Your task to perform on an android device: See recent photos Image 0: 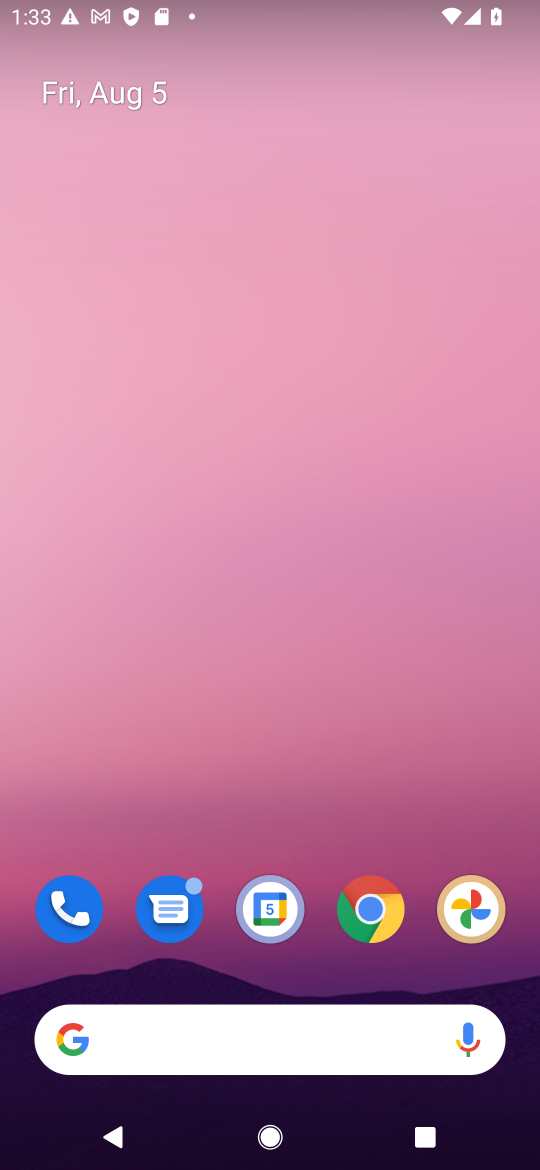
Step 0: click (469, 896)
Your task to perform on an android device: See recent photos Image 1: 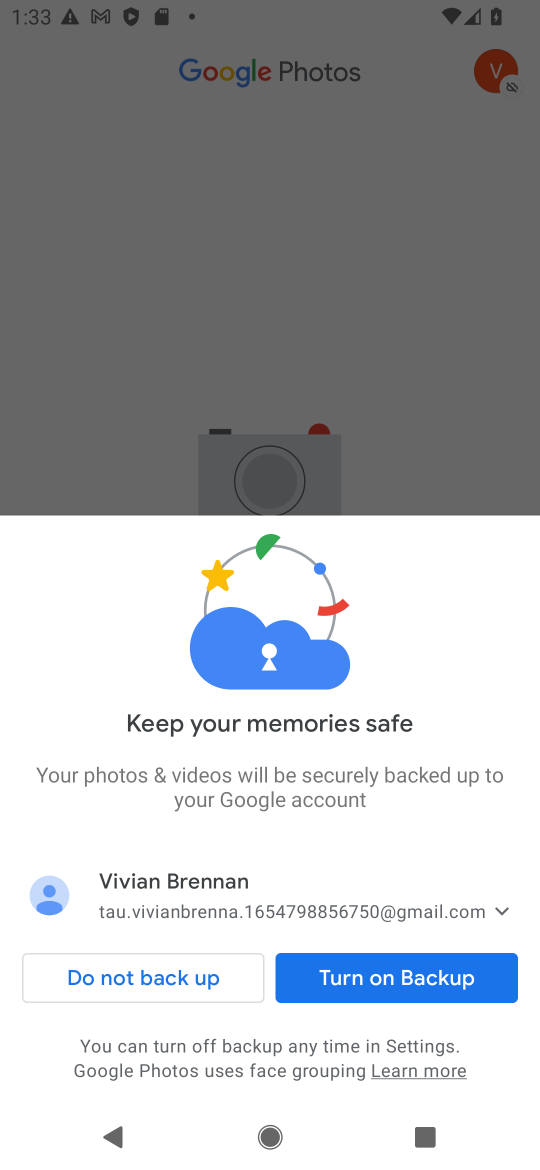
Step 1: click (379, 978)
Your task to perform on an android device: See recent photos Image 2: 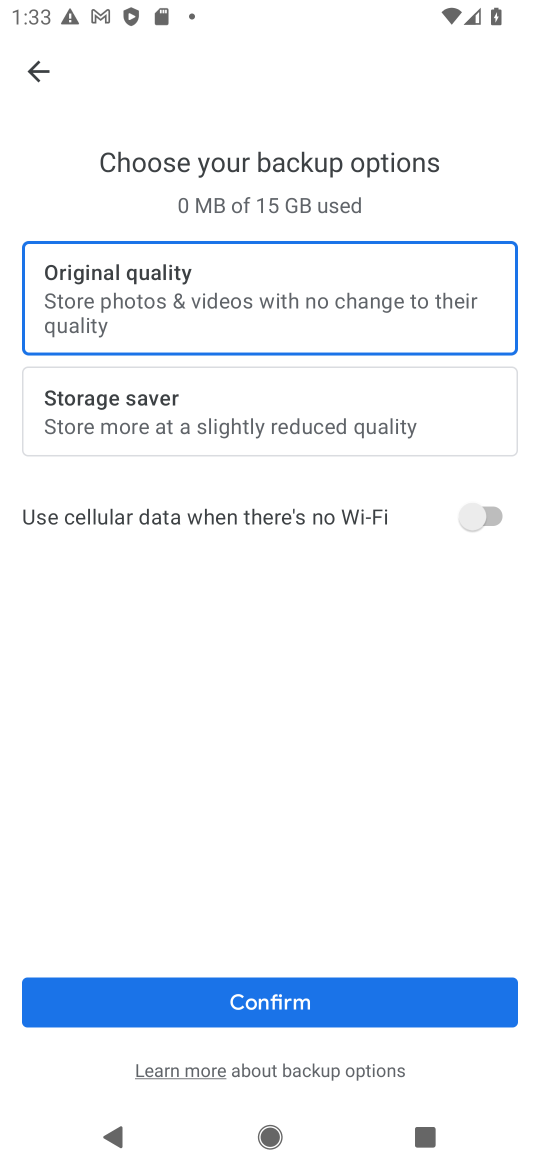
Step 2: click (316, 990)
Your task to perform on an android device: See recent photos Image 3: 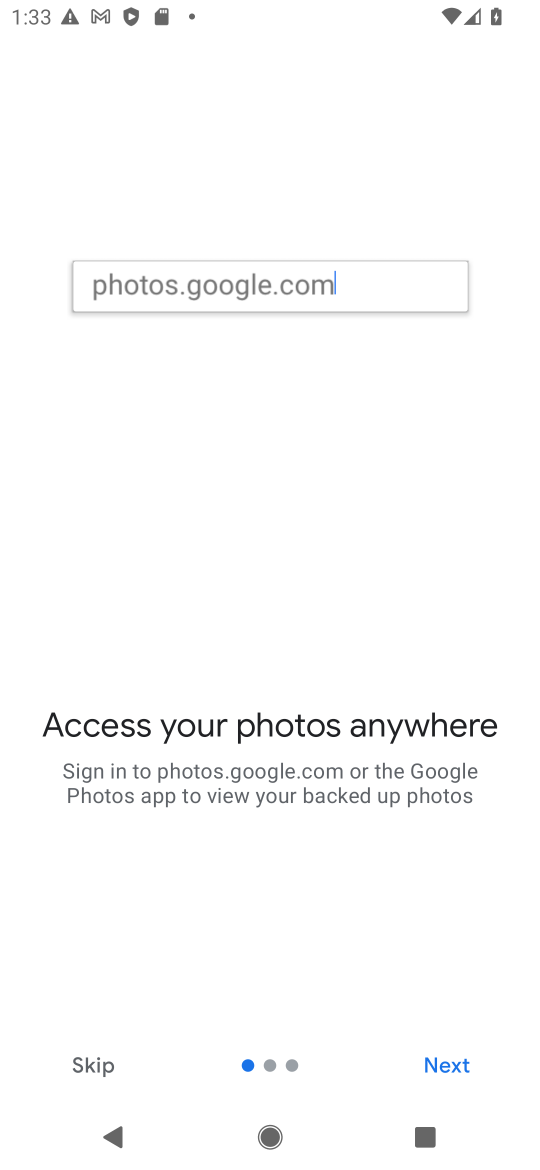
Step 3: click (433, 1065)
Your task to perform on an android device: See recent photos Image 4: 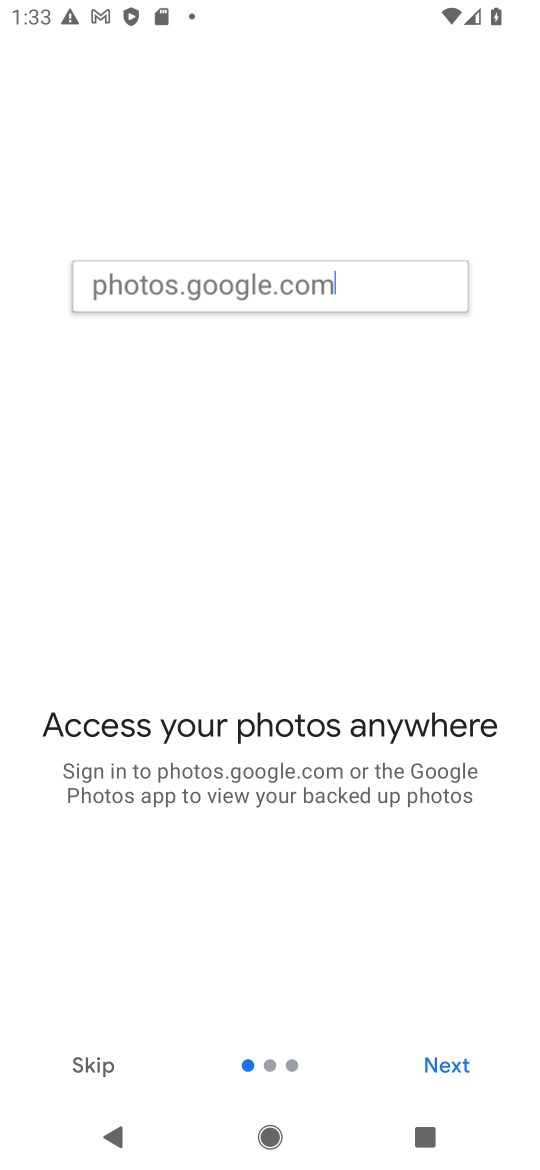
Step 4: click (433, 1065)
Your task to perform on an android device: See recent photos Image 5: 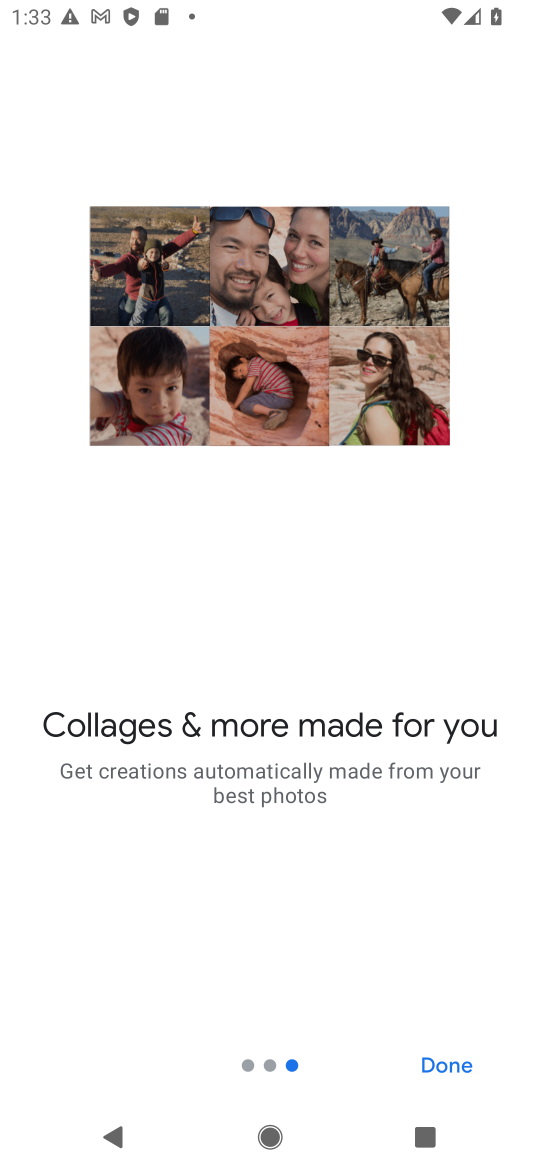
Step 5: click (433, 1065)
Your task to perform on an android device: See recent photos Image 6: 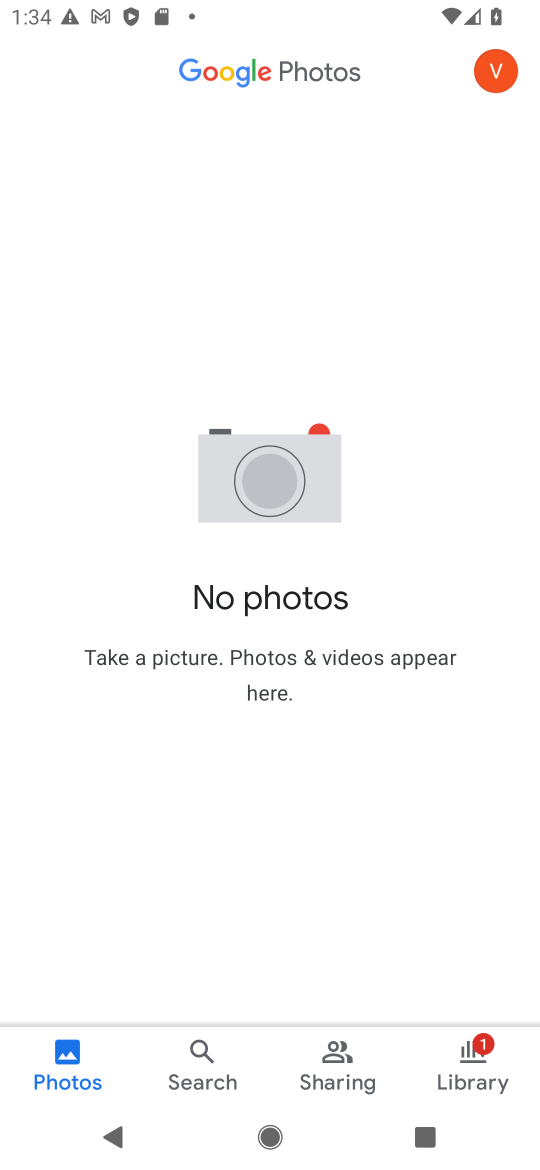
Step 6: task complete